Your task to perform on an android device: make emails show in primary in the gmail app Image 0: 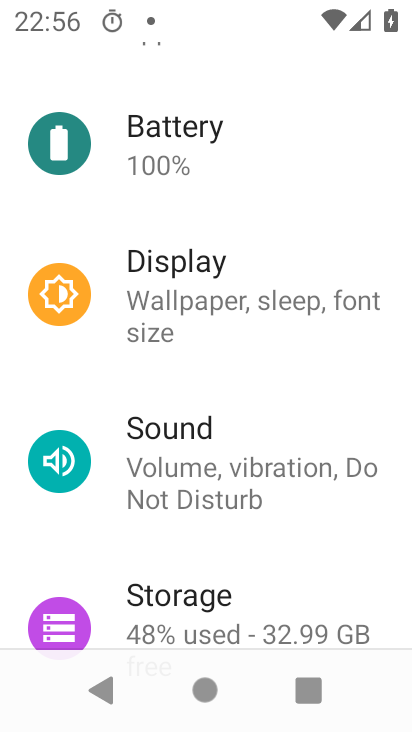
Step 0: press home button
Your task to perform on an android device: make emails show in primary in the gmail app Image 1: 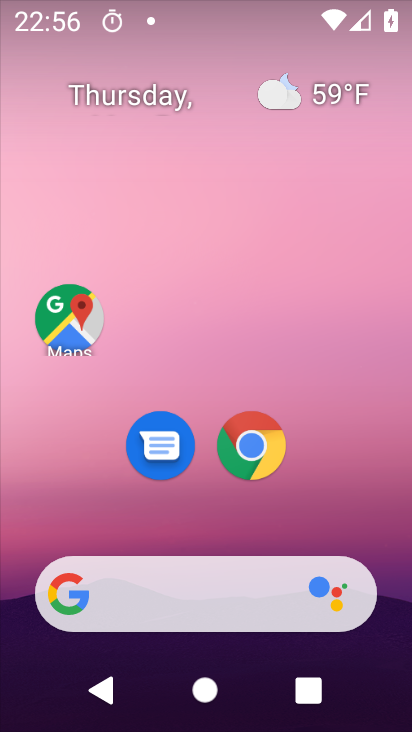
Step 1: drag from (179, 583) to (220, 198)
Your task to perform on an android device: make emails show in primary in the gmail app Image 2: 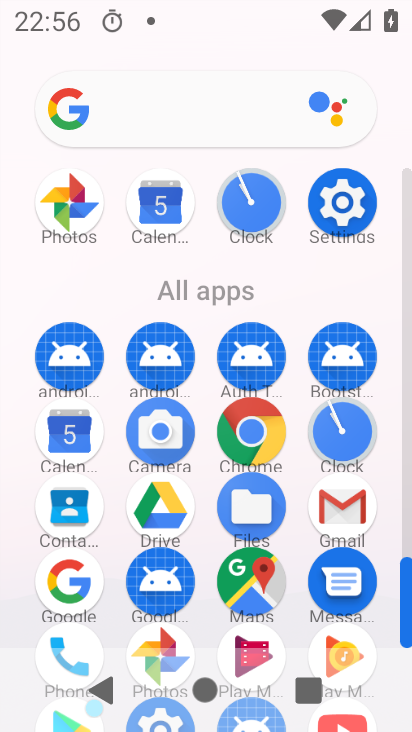
Step 2: click (331, 502)
Your task to perform on an android device: make emails show in primary in the gmail app Image 3: 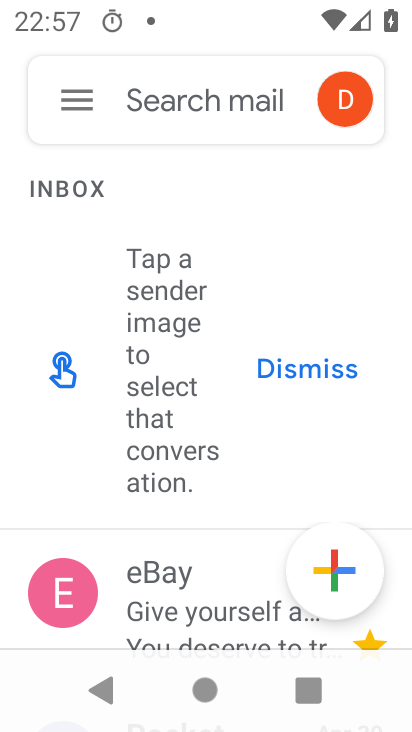
Step 3: click (69, 105)
Your task to perform on an android device: make emails show in primary in the gmail app Image 4: 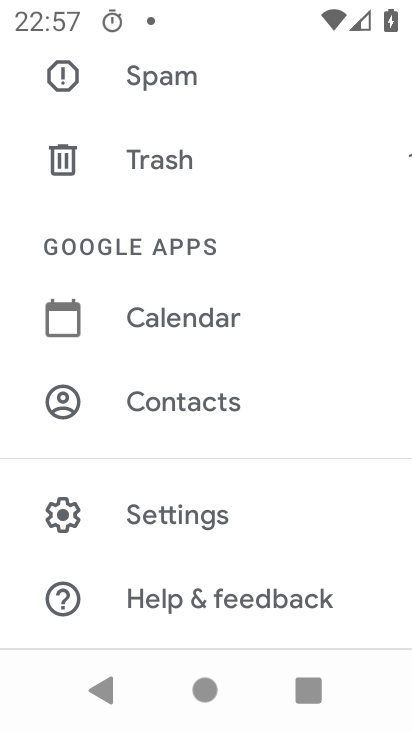
Step 4: click (143, 510)
Your task to perform on an android device: make emails show in primary in the gmail app Image 5: 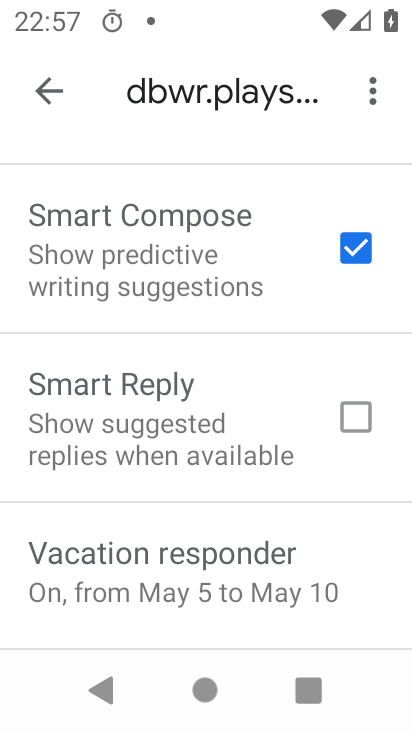
Step 5: drag from (286, 170) to (289, 656)
Your task to perform on an android device: make emails show in primary in the gmail app Image 6: 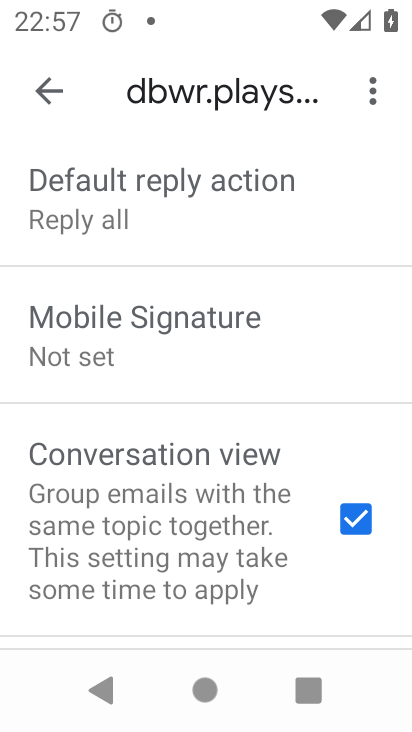
Step 6: drag from (225, 244) to (289, 594)
Your task to perform on an android device: make emails show in primary in the gmail app Image 7: 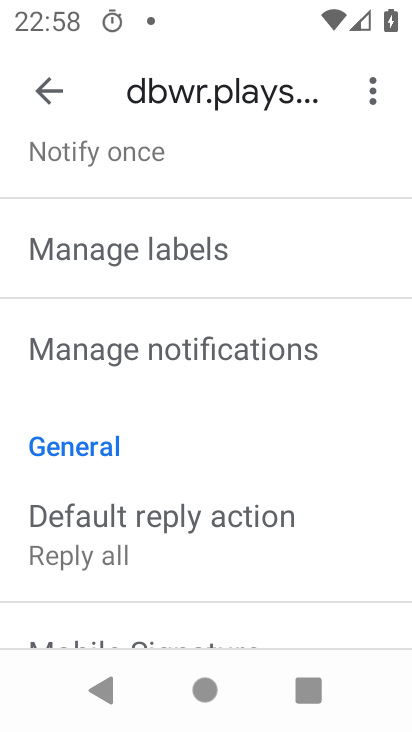
Step 7: drag from (144, 189) to (156, 512)
Your task to perform on an android device: make emails show in primary in the gmail app Image 8: 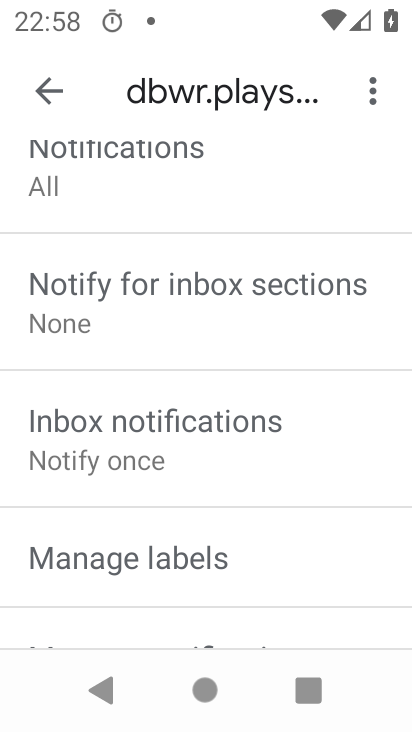
Step 8: drag from (237, 182) to (271, 576)
Your task to perform on an android device: make emails show in primary in the gmail app Image 9: 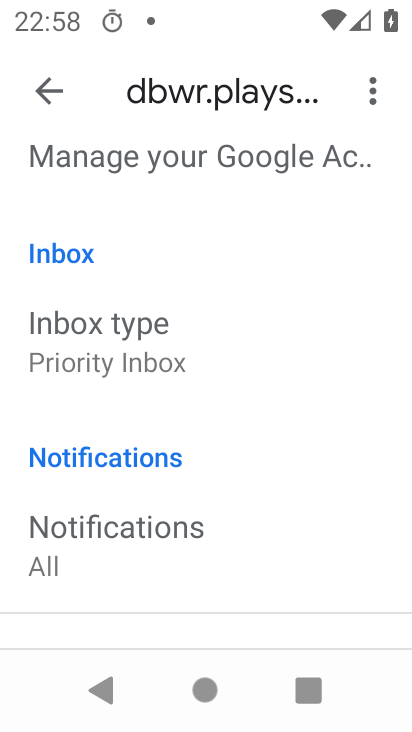
Step 9: click (136, 361)
Your task to perform on an android device: make emails show in primary in the gmail app Image 10: 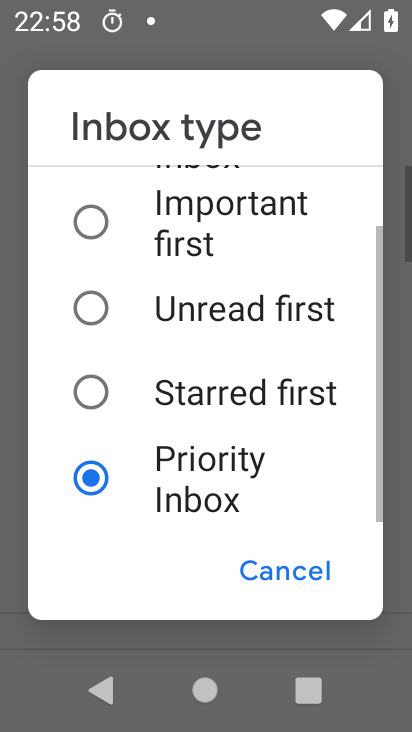
Step 10: drag from (173, 244) to (168, 618)
Your task to perform on an android device: make emails show in primary in the gmail app Image 11: 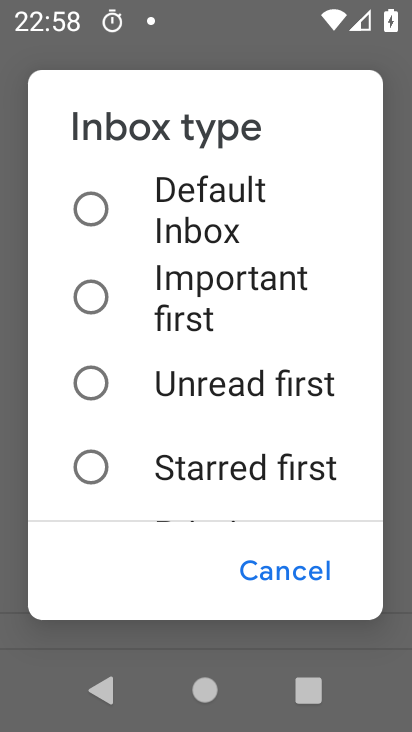
Step 11: click (187, 201)
Your task to perform on an android device: make emails show in primary in the gmail app Image 12: 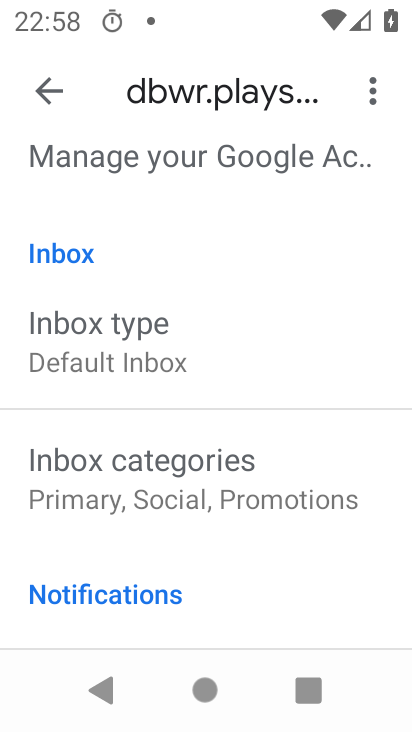
Step 12: click (128, 495)
Your task to perform on an android device: make emails show in primary in the gmail app Image 13: 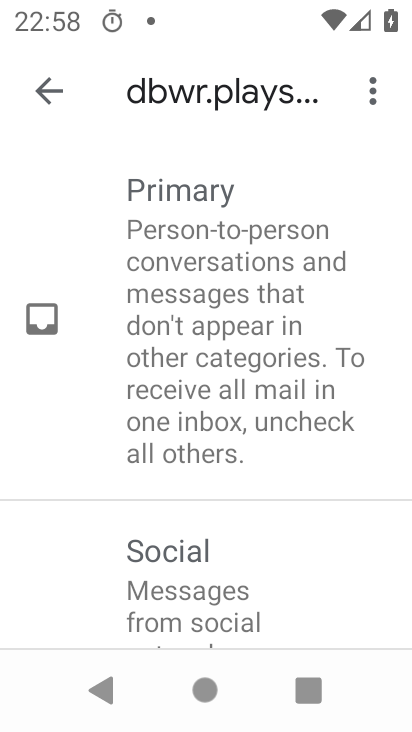
Step 13: drag from (271, 533) to (71, 180)
Your task to perform on an android device: make emails show in primary in the gmail app Image 14: 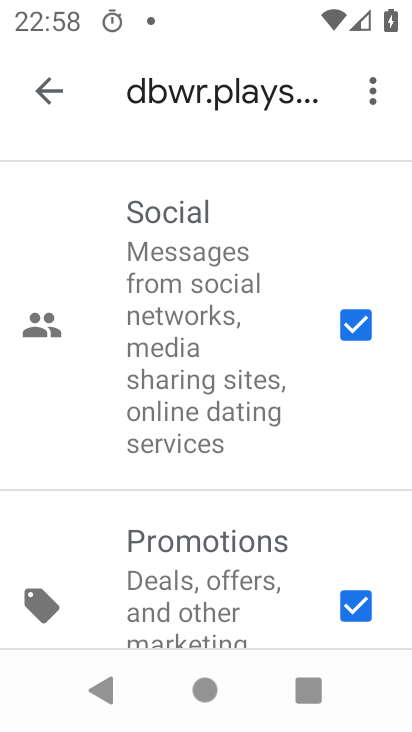
Step 14: click (362, 337)
Your task to perform on an android device: make emails show in primary in the gmail app Image 15: 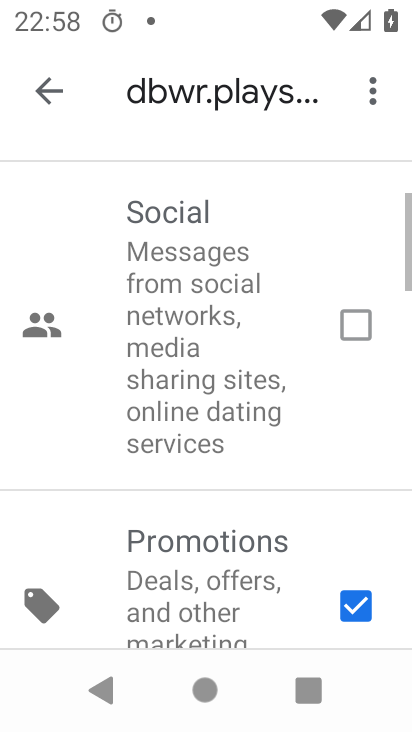
Step 15: click (357, 611)
Your task to perform on an android device: make emails show in primary in the gmail app Image 16: 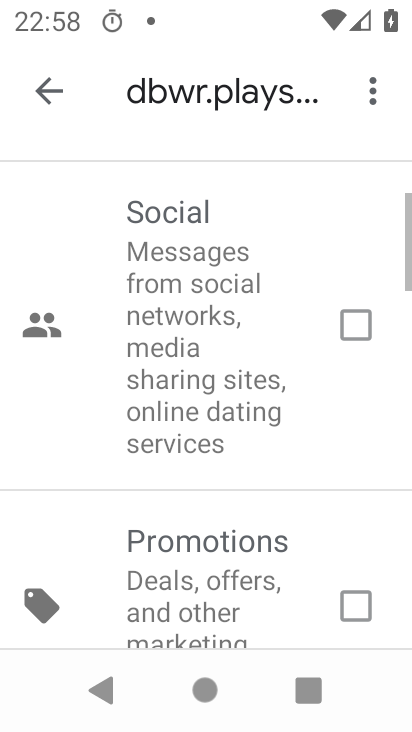
Step 16: task complete